Your task to perform on an android device: toggle pop-ups in chrome Image 0: 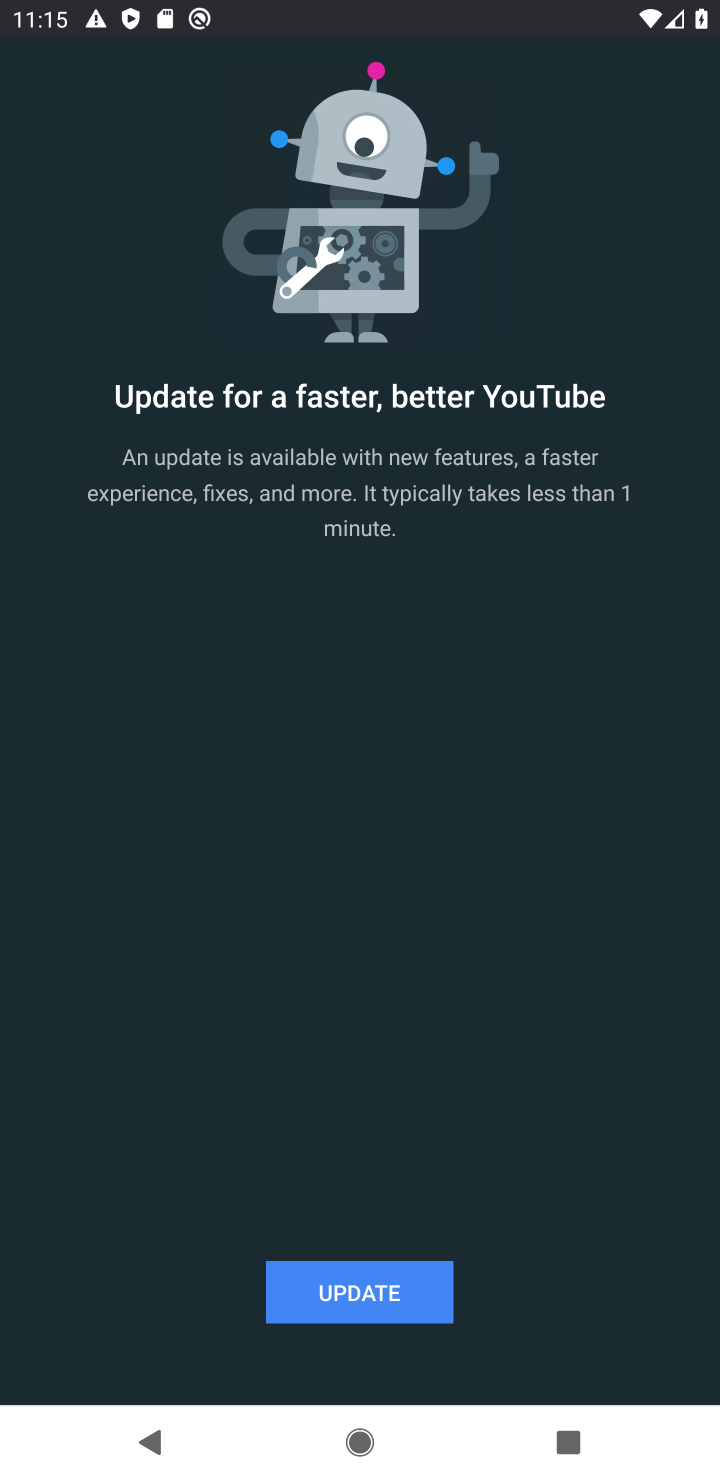
Step 0: click (407, 285)
Your task to perform on an android device: toggle pop-ups in chrome Image 1: 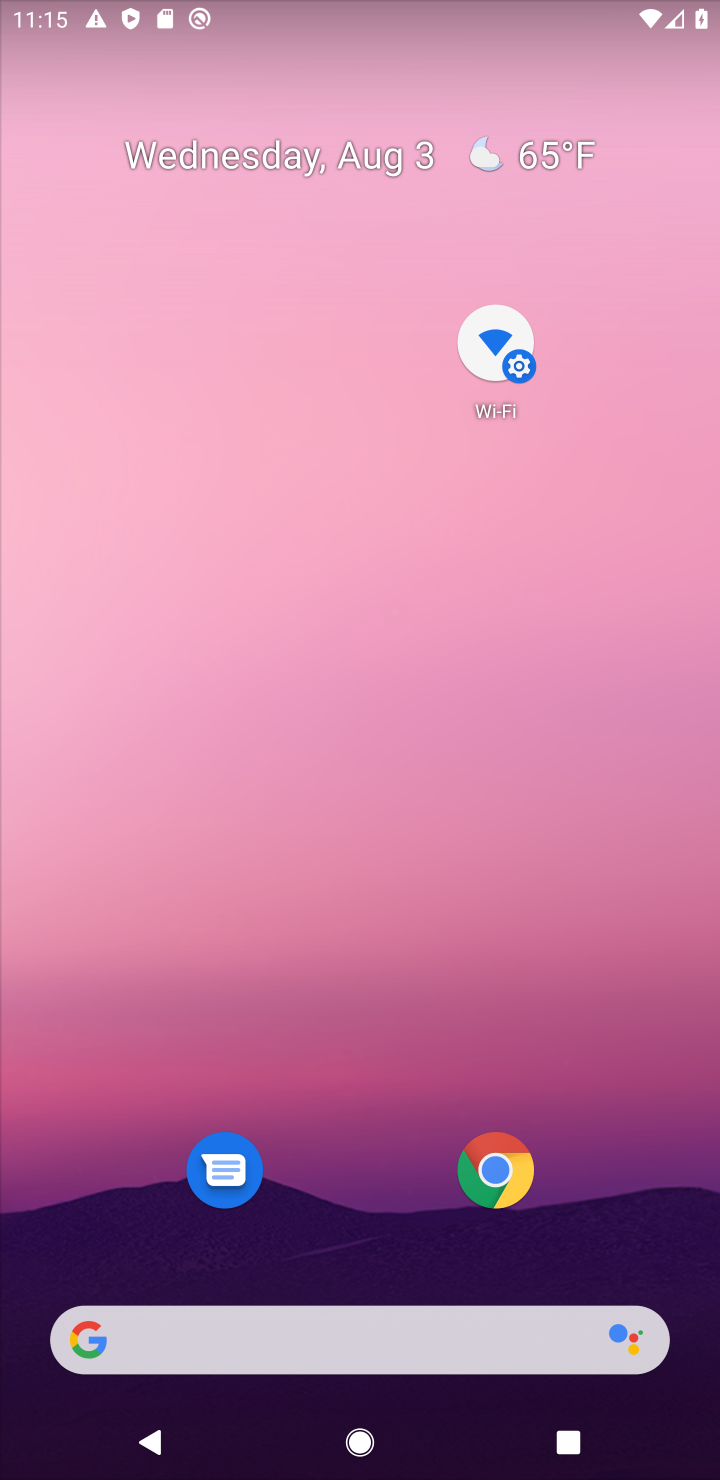
Step 1: press home button
Your task to perform on an android device: toggle pop-ups in chrome Image 2: 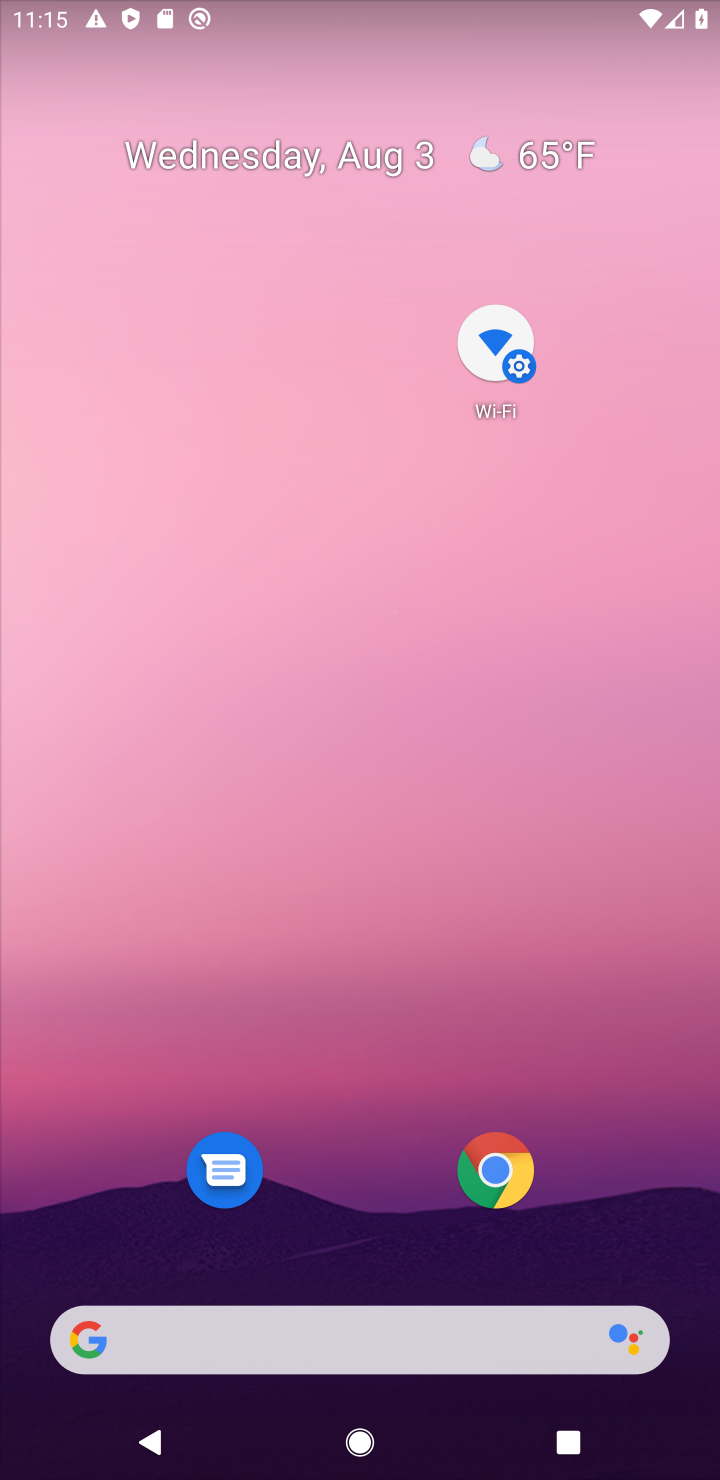
Step 2: drag from (370, 1164) to (397, 218)
Your task to perform on an android device: toggle pop-ups in chrome Image 3: 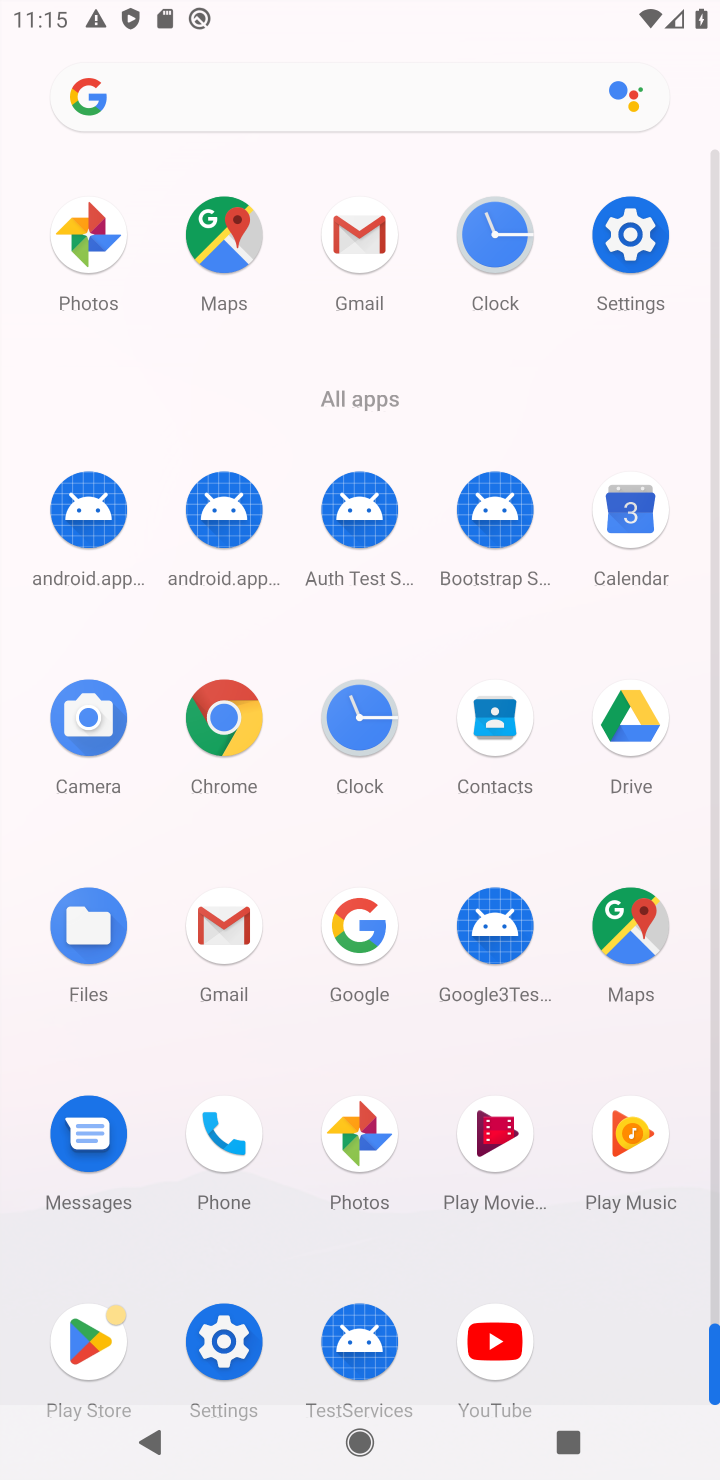
Step 3: click (205, 714)
Your task to perform on an android device: toggle pop-ups in chrome Image 4: 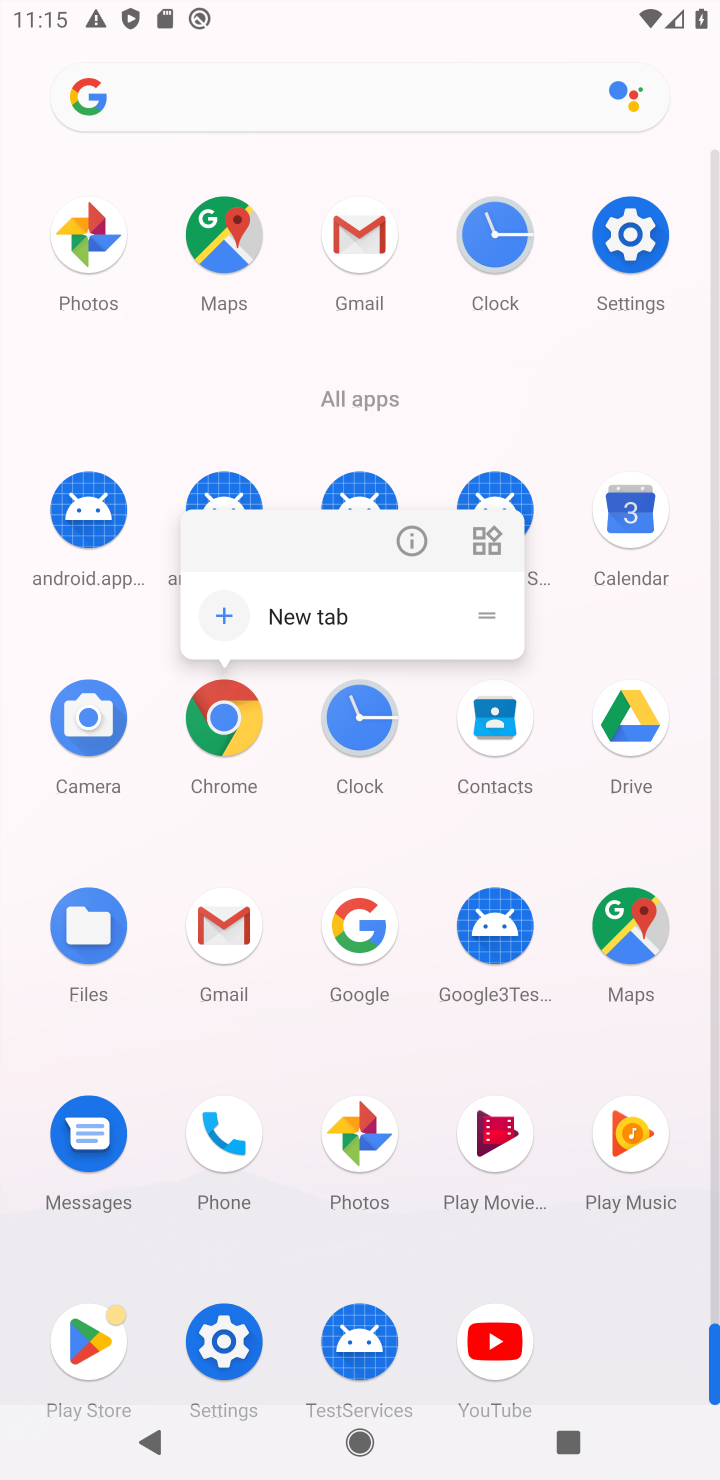
Step 4: click (410, 543)
Your task to perform on an android device: toggle pop-ups in chrome Image 5: 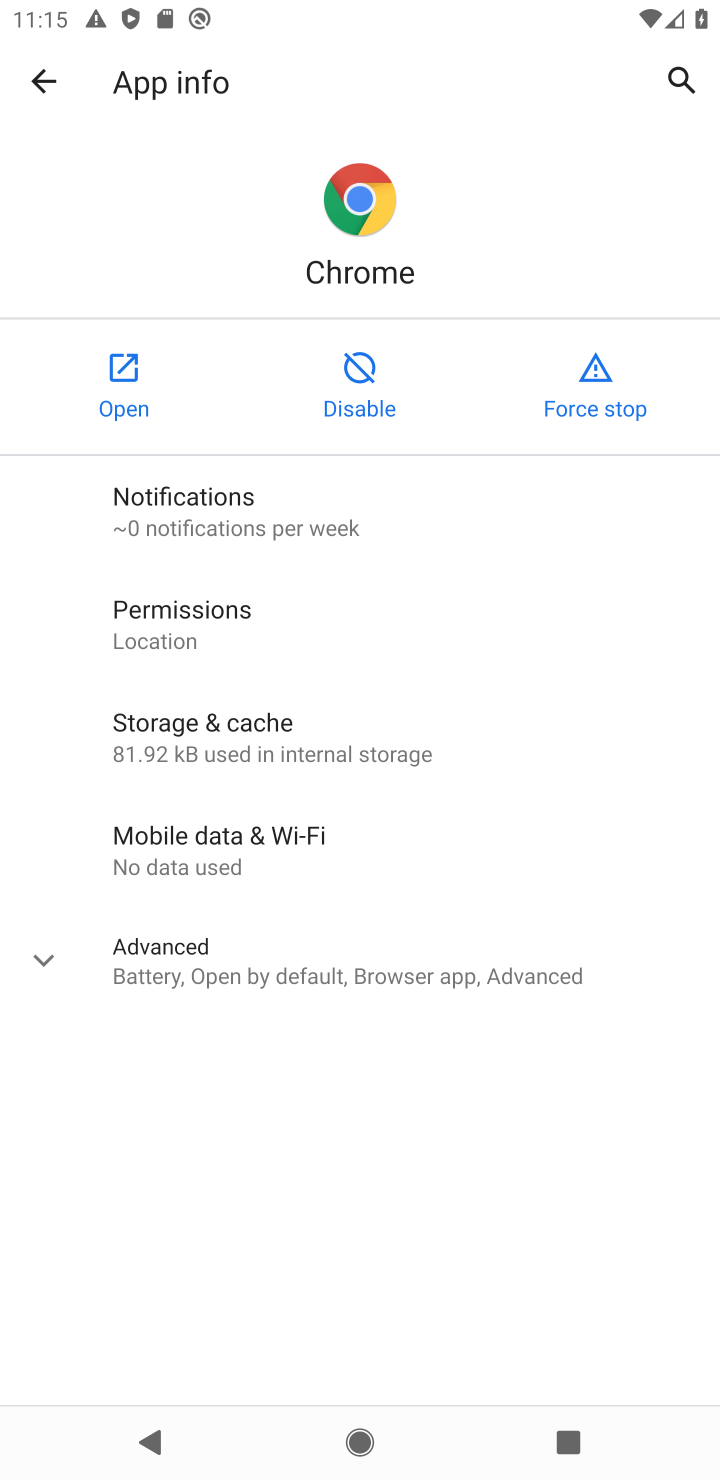
Step 5: click (145, 339)
Your task to perform on an android device: toggle pop-ups in chrome Image 6: 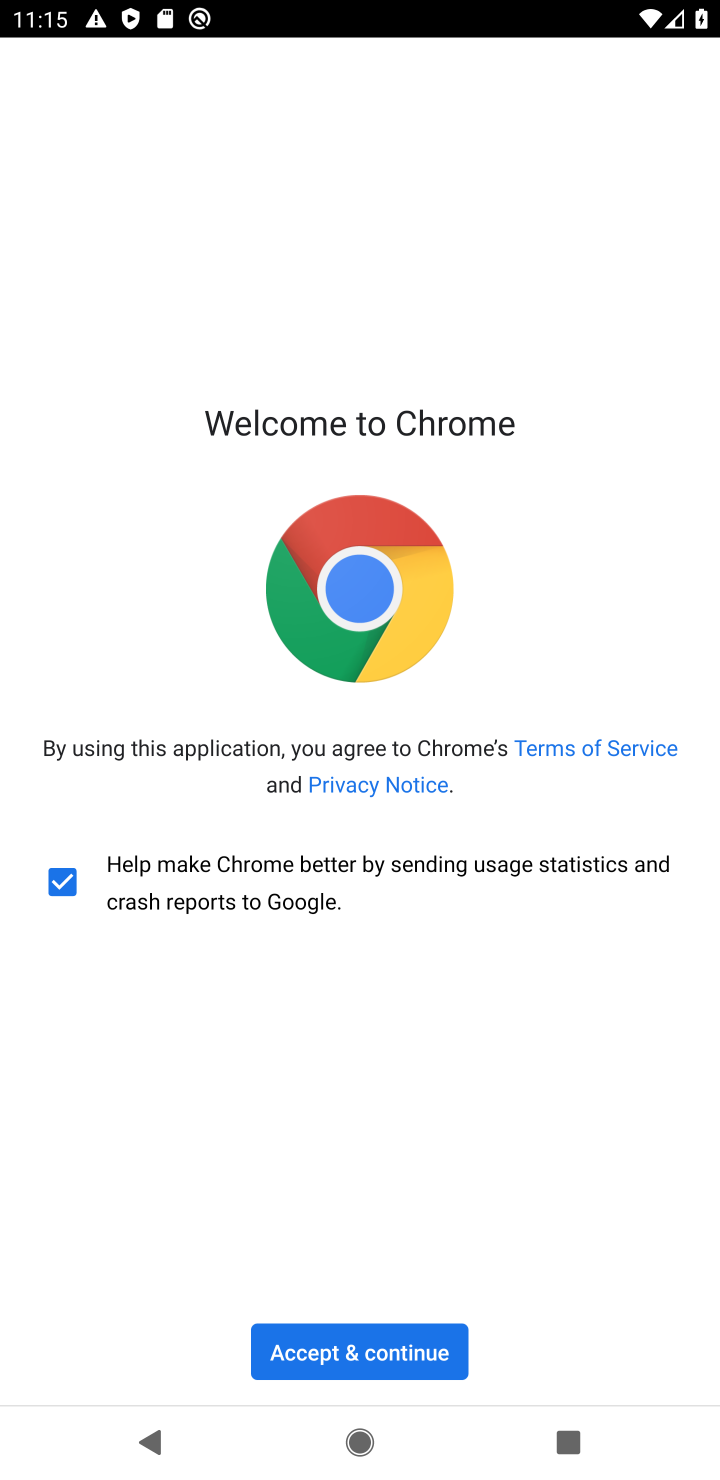
Step 6: drag from (410, 891) to (401, 585)
Your task to perform on an android device: toggle pop-ups in chrome Image 7: 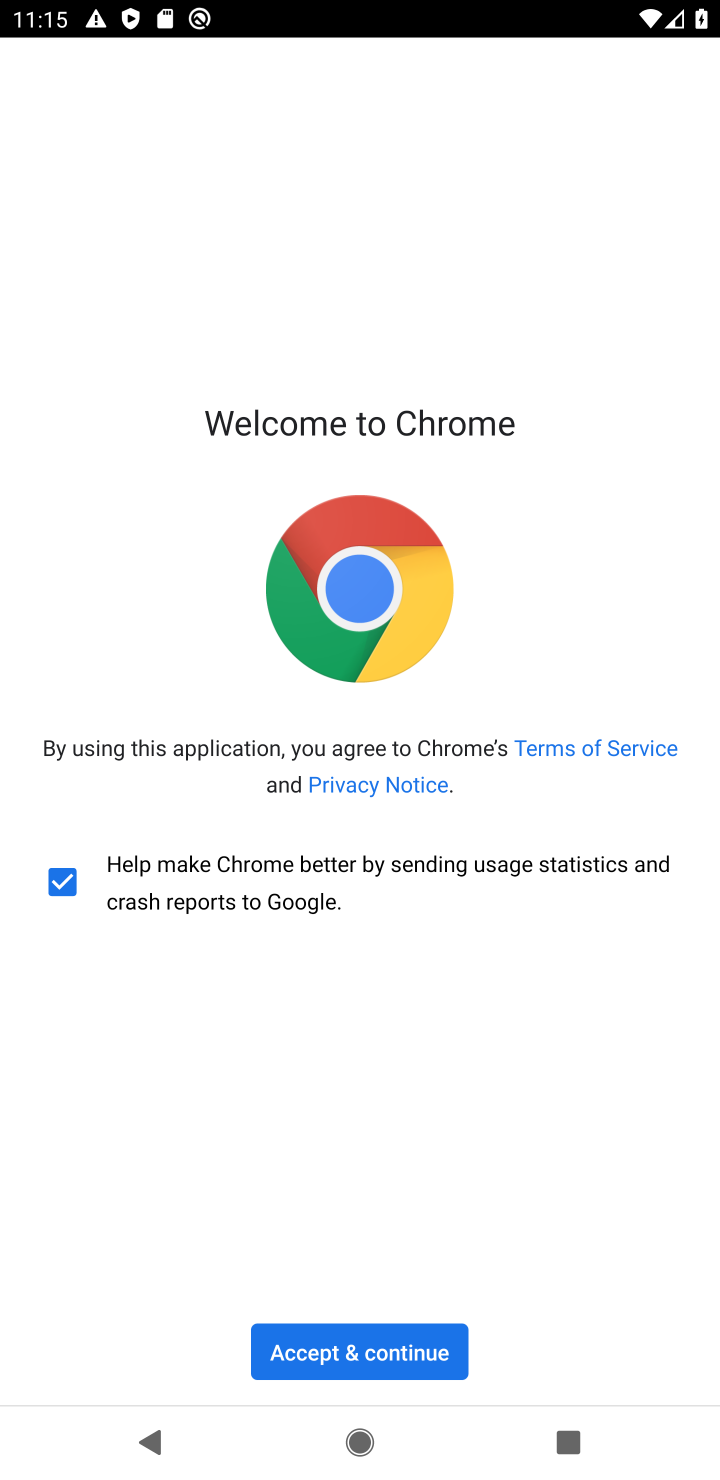
Step 7: drag from (353, 1171) to (443, 575)
Your task to perform on an android device: toggle pop-ups in chrome Image 8: 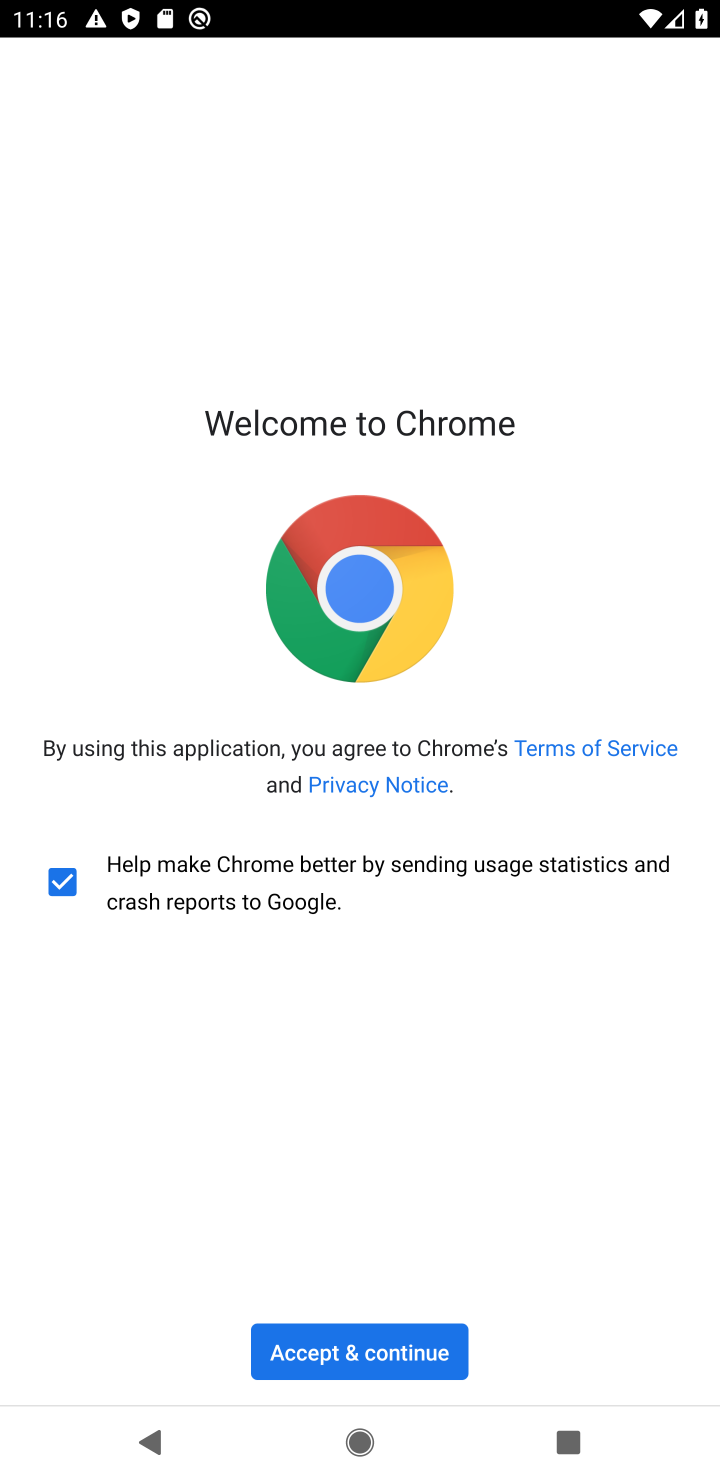
Step 8: drag from (385, 1217) to (454, 931)
Your task to perform on an android device: toggle pop-ups in chrome Image 9: 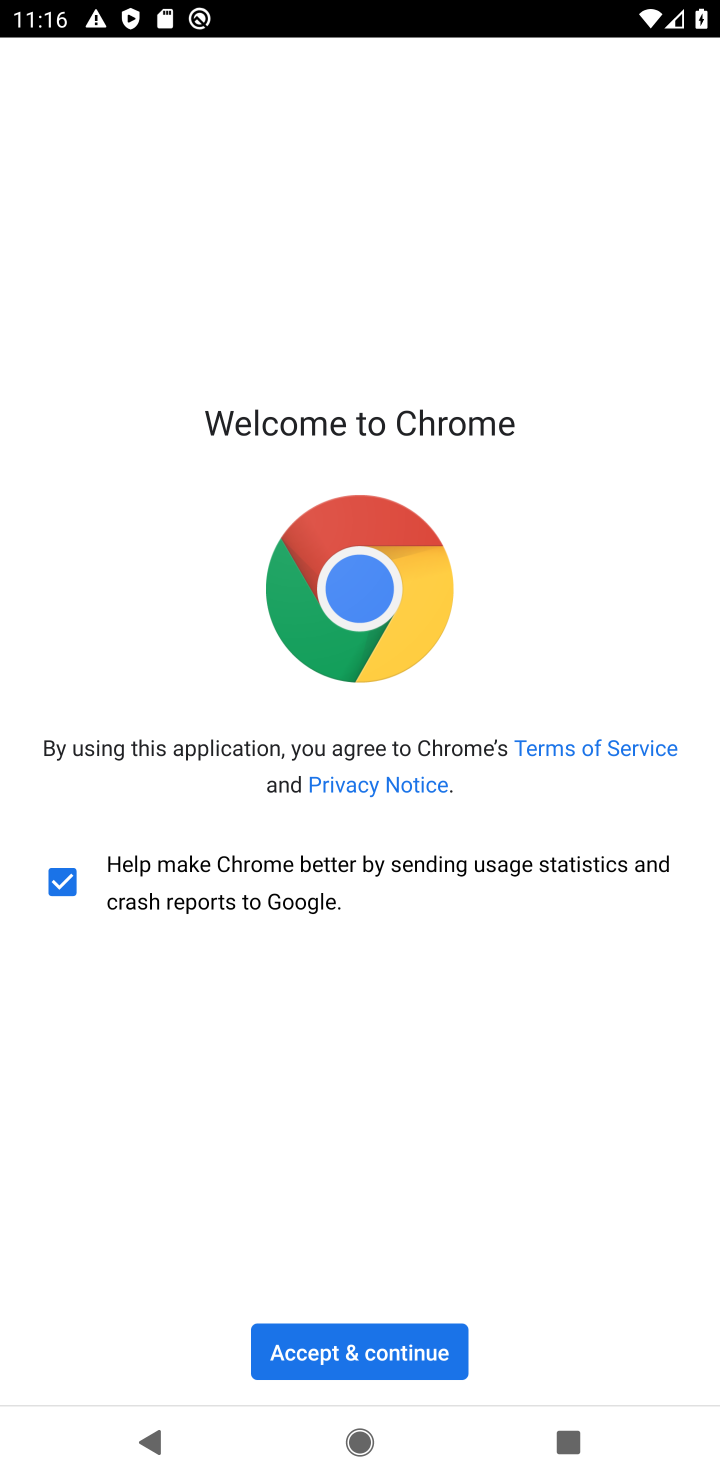
Step 9: drag from (313, 1096) to (350, 817)
Your task to perform on an android device: toggle pop-ups in chrome Image 10: 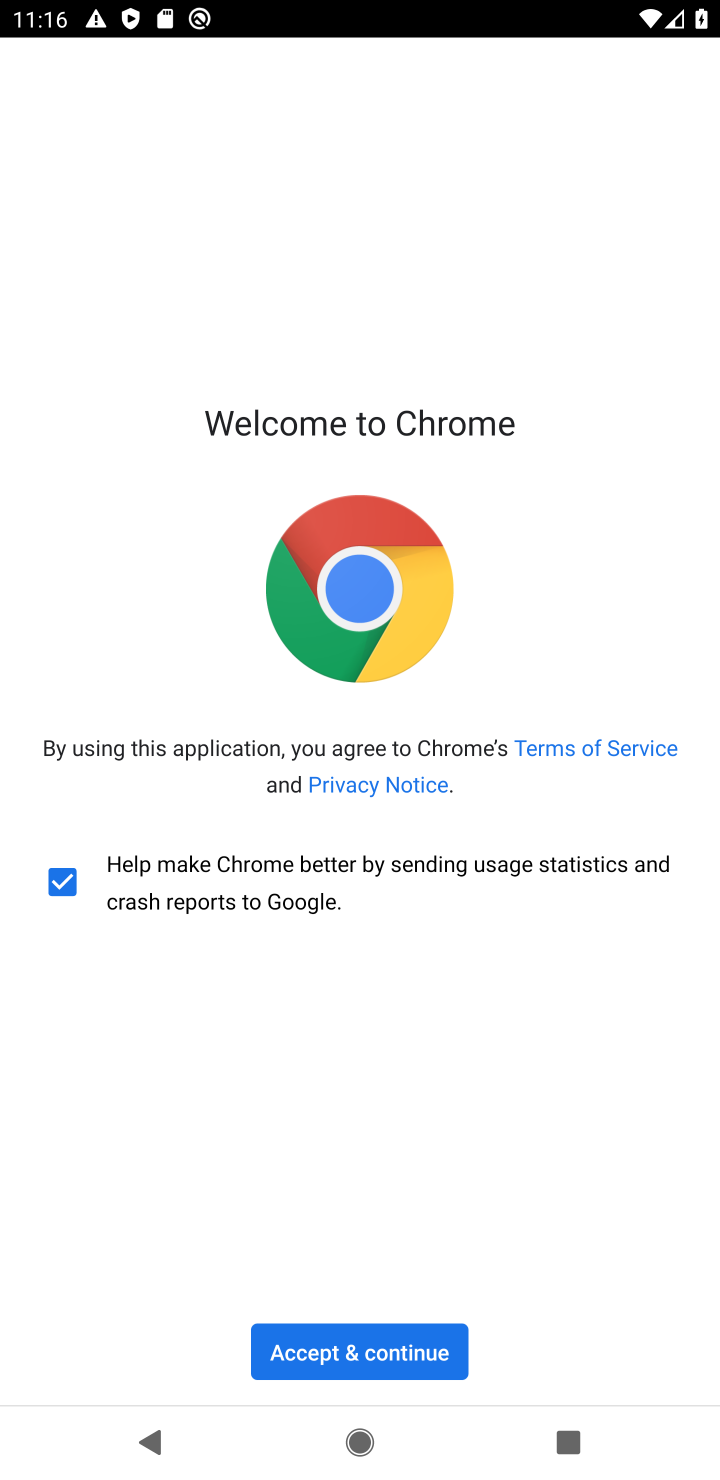
Step 10: press home button
Your task to perform on an android device: toggle pop-ups in chrome Image 11: 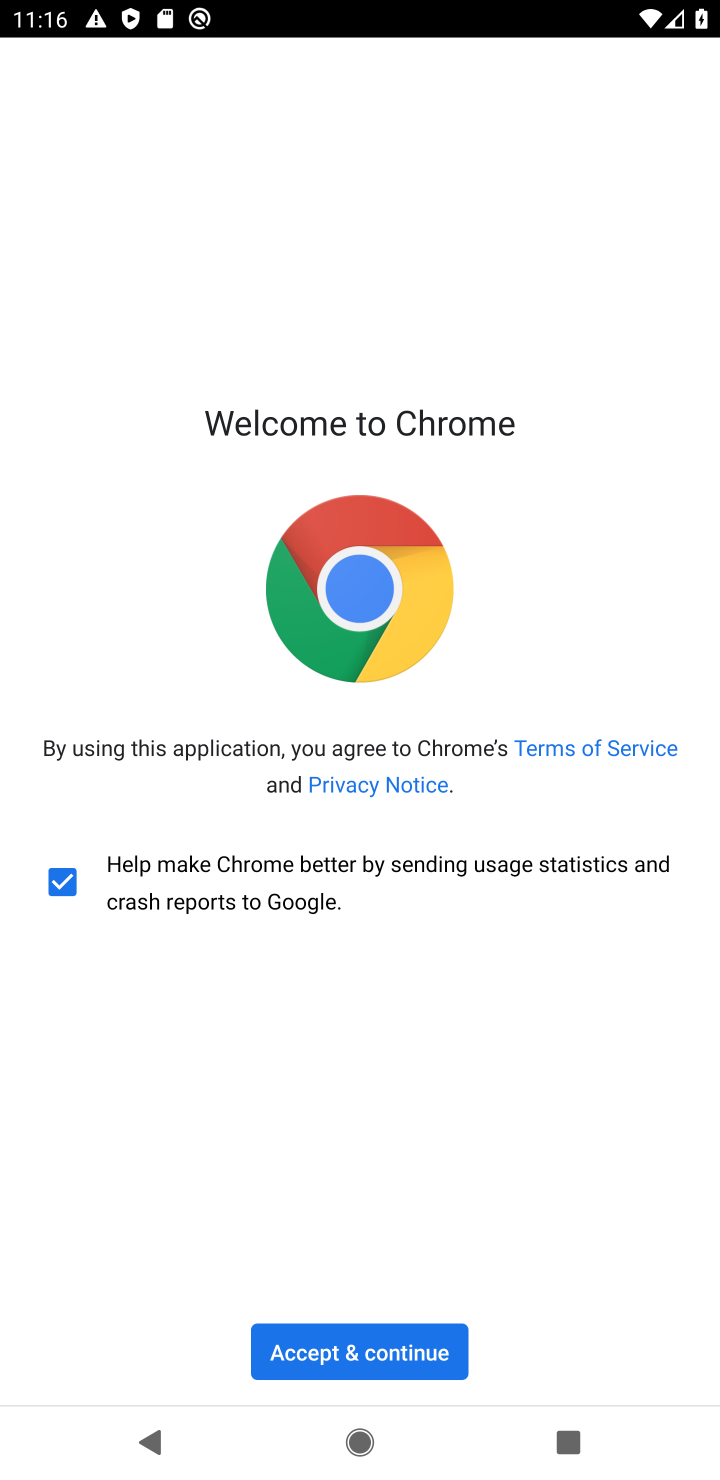
Step 11: click (486, 409)
Your task to perform on an android device: toggle pop-ups in chrome Image 12: 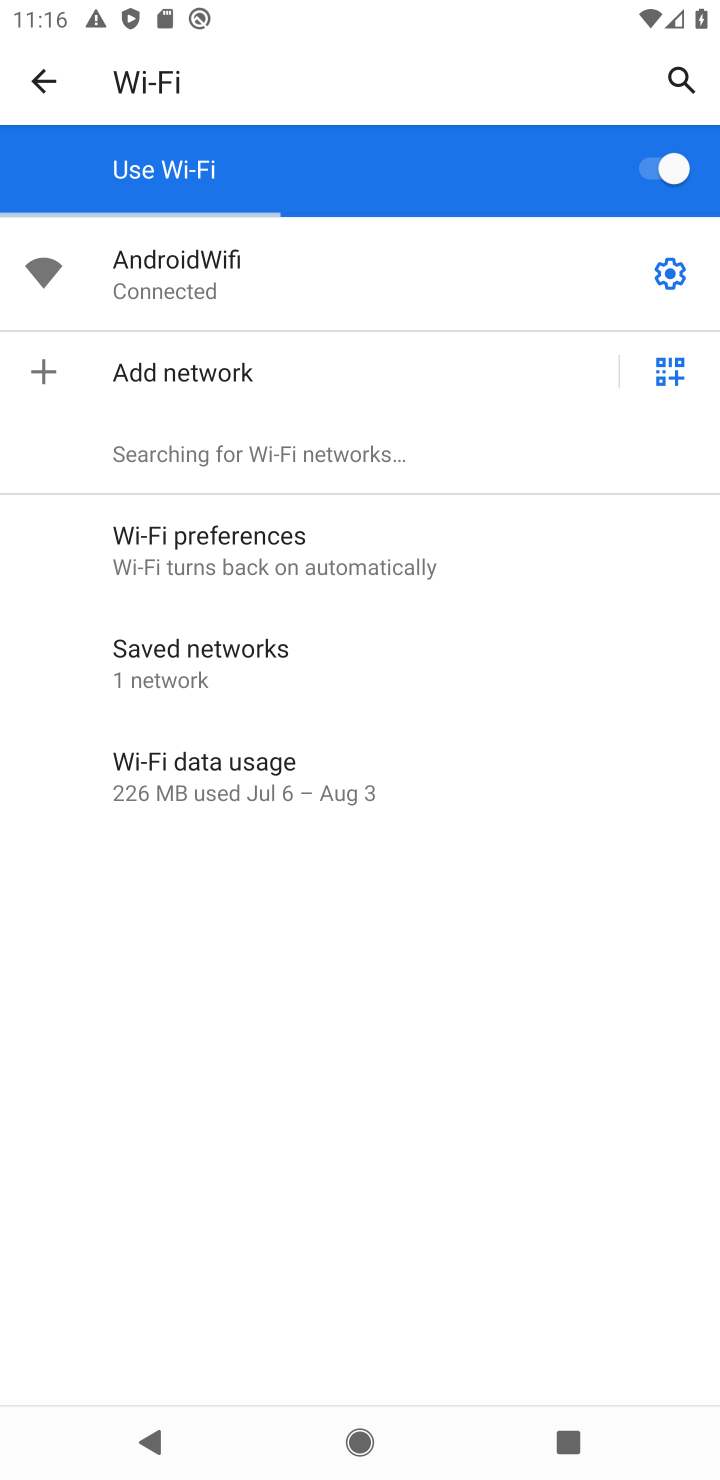
Step 12: drag from (393, 542) to (393, 321)
Your task to perform on an android device: toggle pop-ups in chrome Image 13: 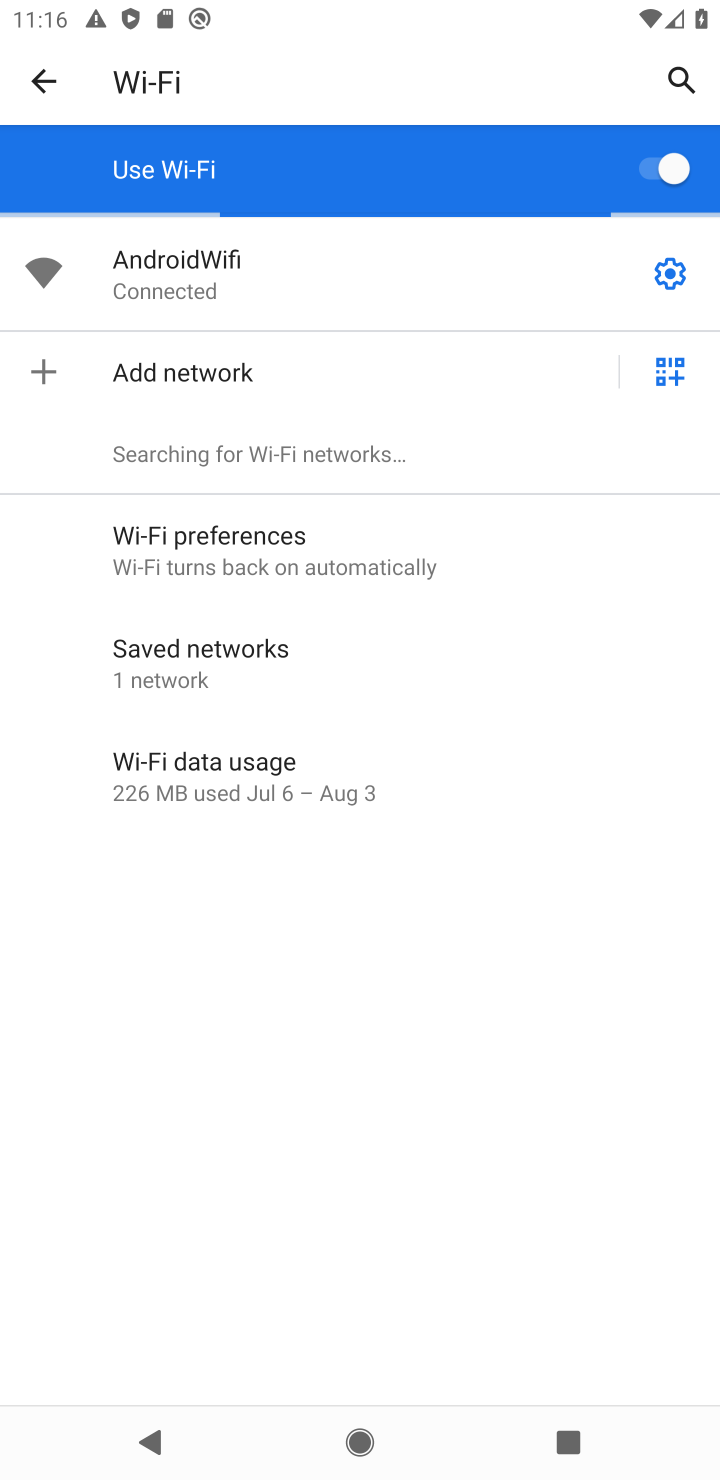
Step 13: press home button
Your task to perform on an android device: toggle pop-ups in chrome Image 14: 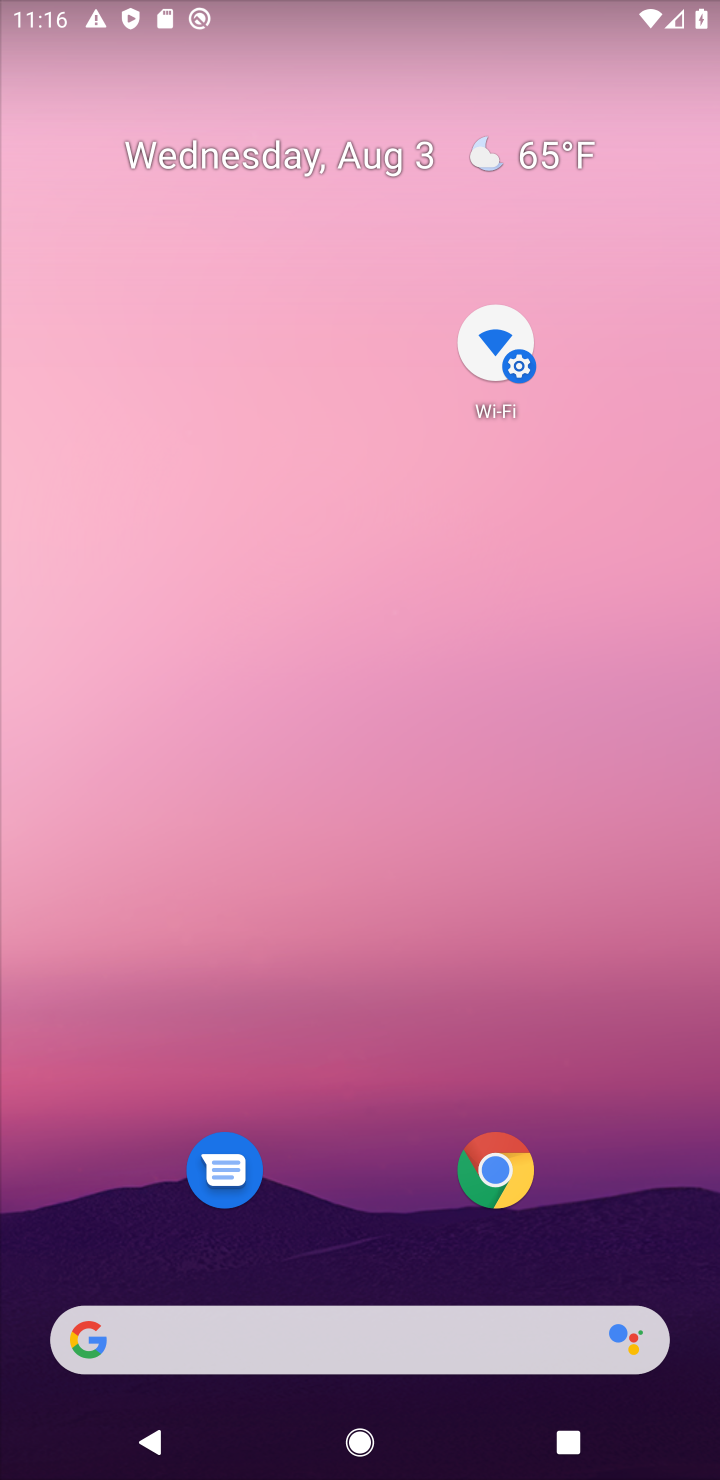
Step 14: press home button
Your task to perform on an android device: toggle pop-ups in chrome Image 15: 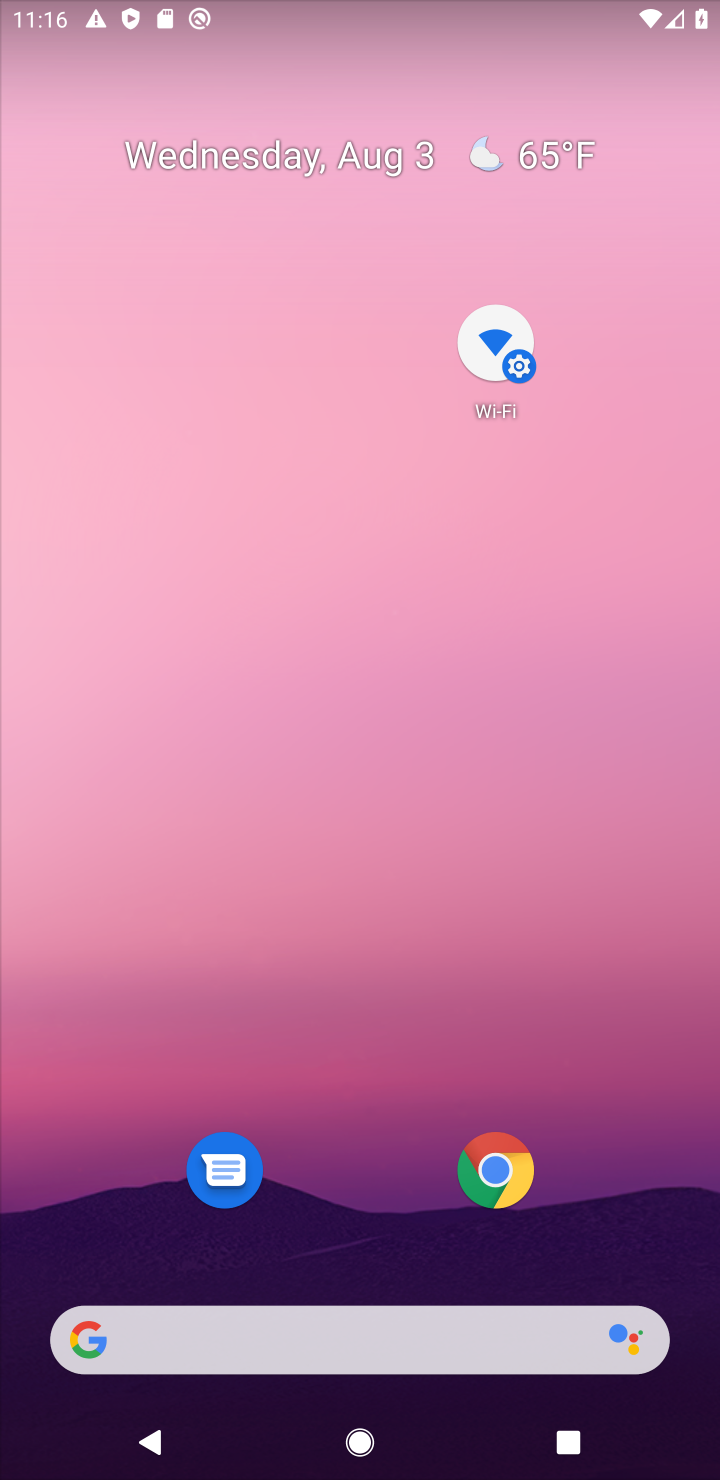
Step 15: click (491, 1161)
Your task to perform on an android device: toggle pop-ups in chrome Image 16: 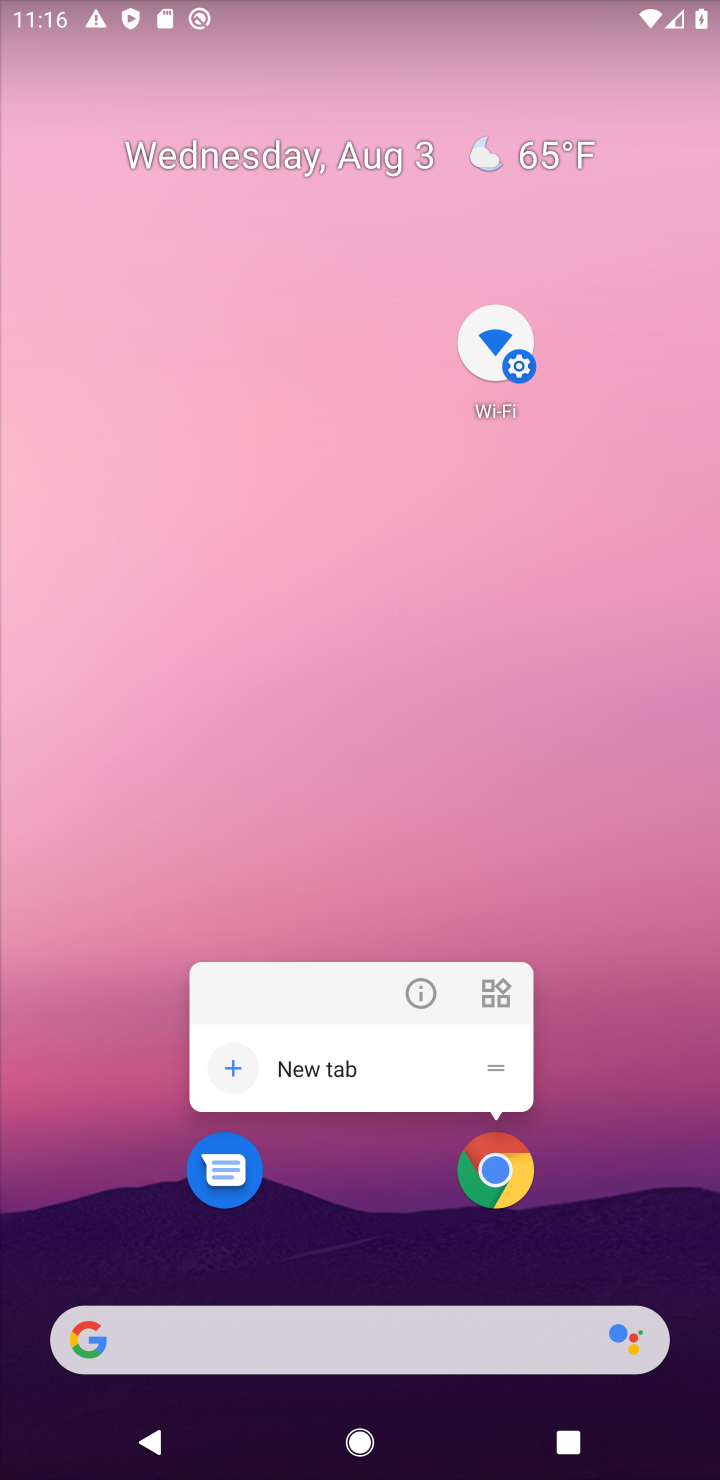
Step 16: click (419, 982)
Your task to perform on an android device: toggle pop-ups in chrome Image 17: 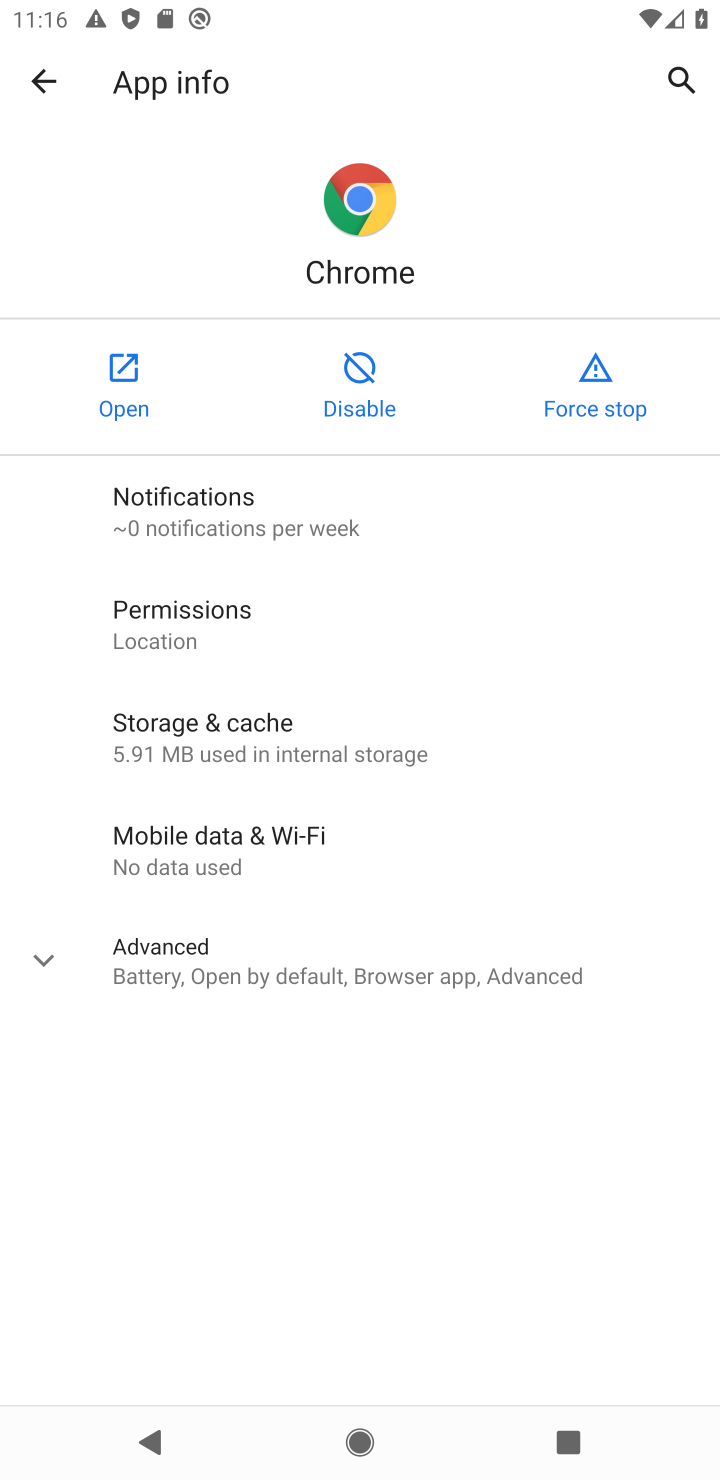
Step 17: click (131, 390)
Your task to perform on an android device: toggle pop-ups in chrome Image 18: 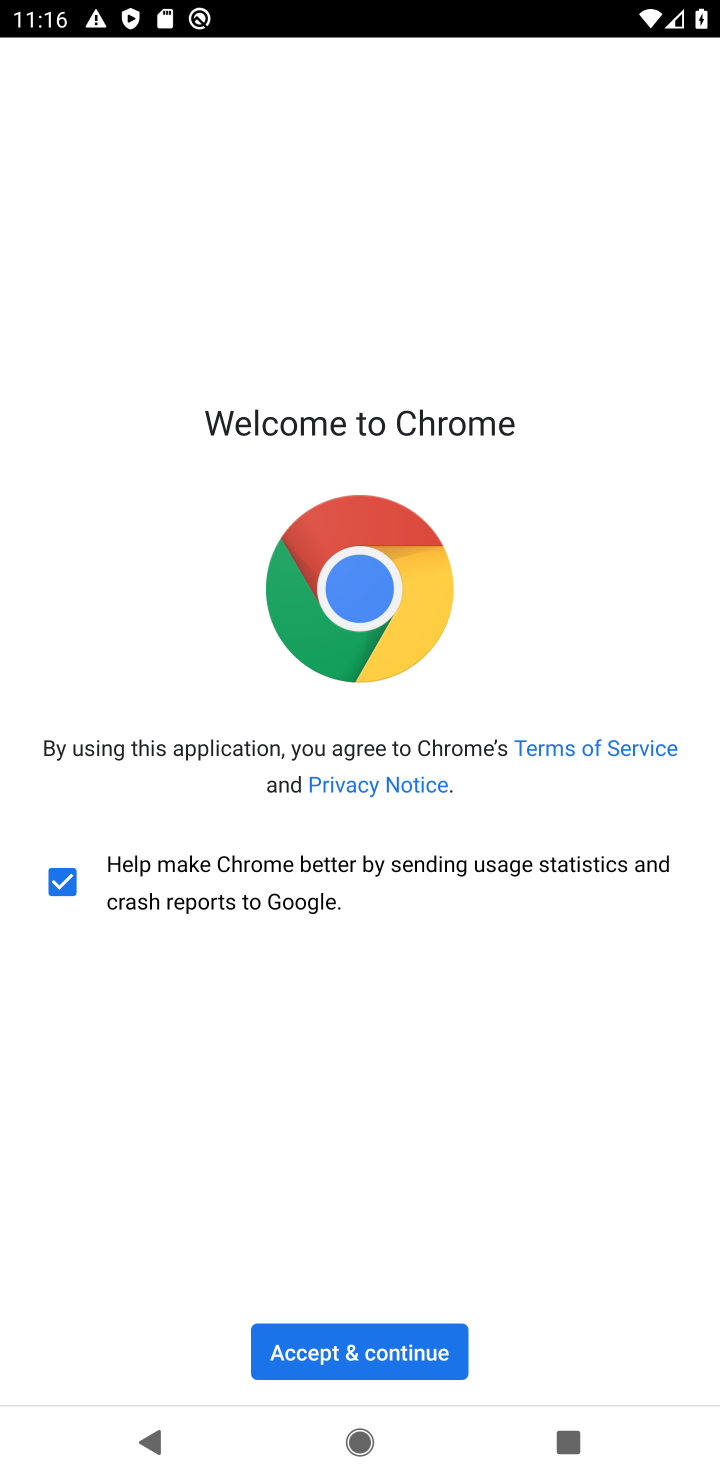
Step 18: click (289, 1378)
Your task to perform on an android device: toggle pop-ups in chrome Image 19: 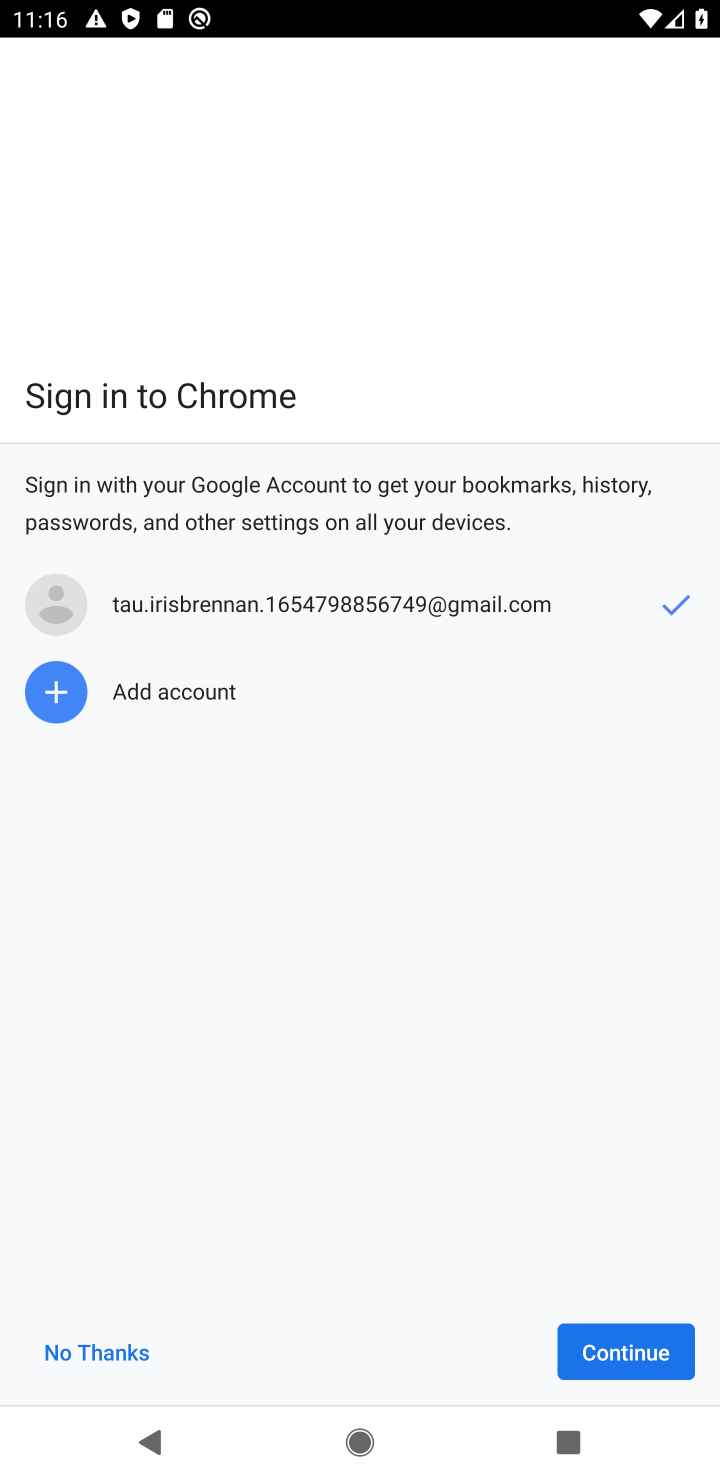
Step 19: click (613, 1334)
Your task to perform on an android device: toggle pop-ups in chrome Image 20: 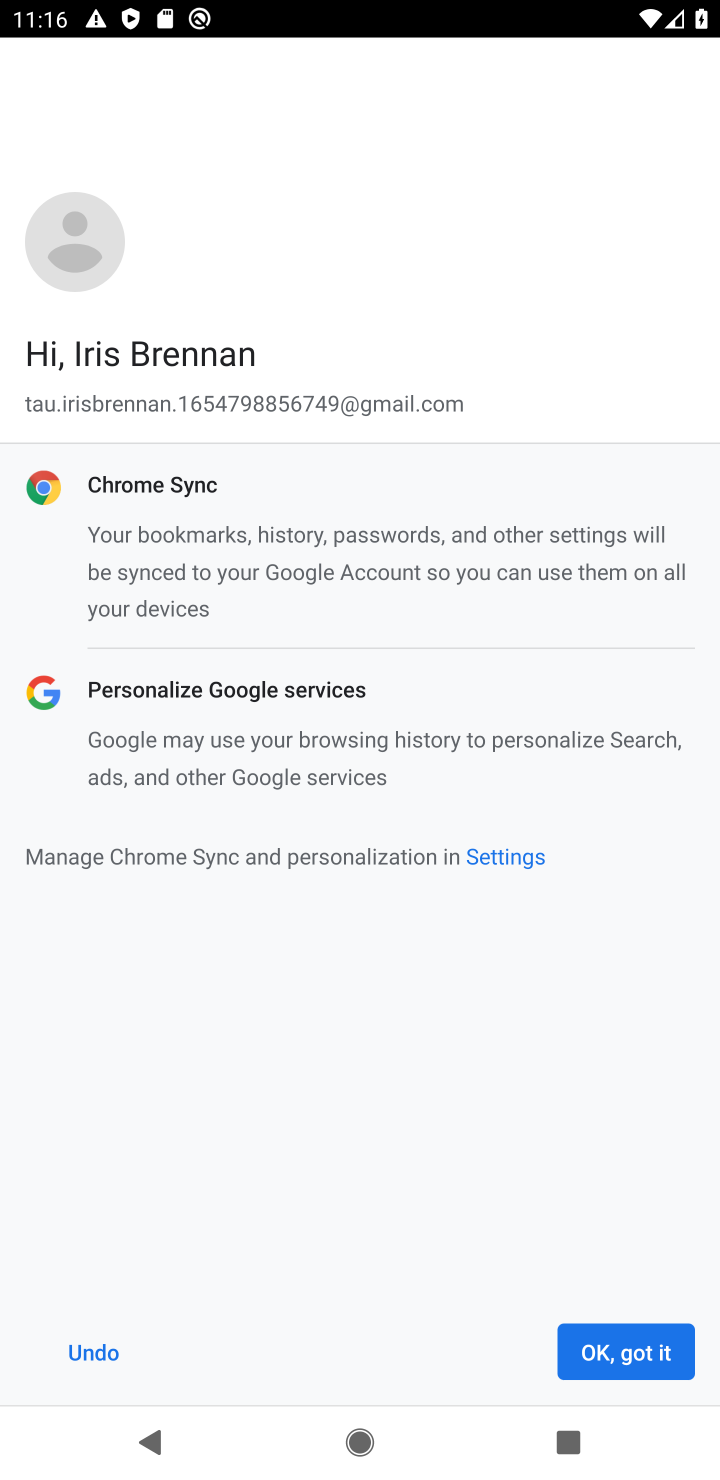
Step 20: click (611, 1336)
Your task to perform on an android device: toggle pop-ups in chrome Image 21: 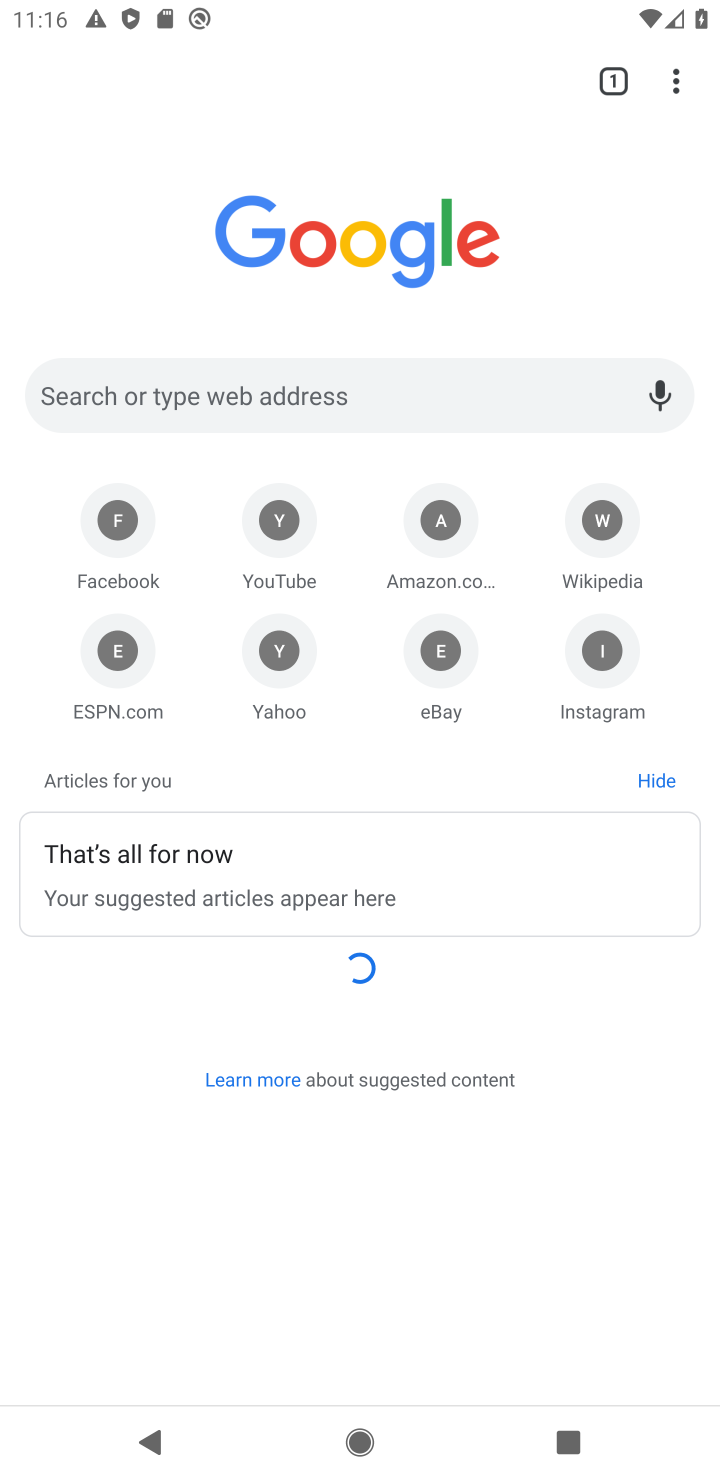
Step 21: task complete